Your task to perform on an android device: turn on notifications settings in the gmail app Image 0: 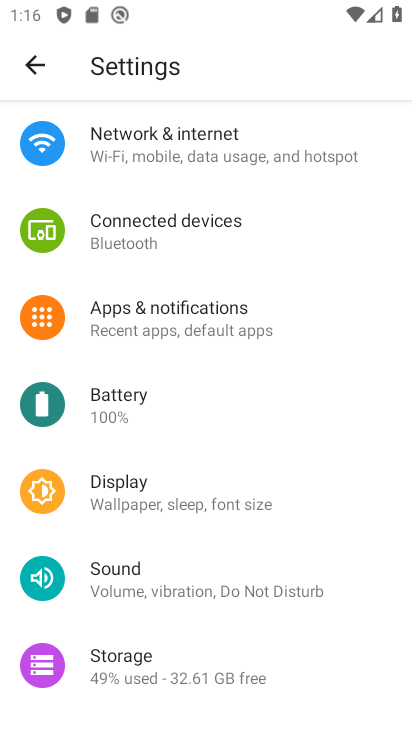
Step 0: press home button
Your task to perform on an android device: turn on notifications settings in the gmail app Image 1: 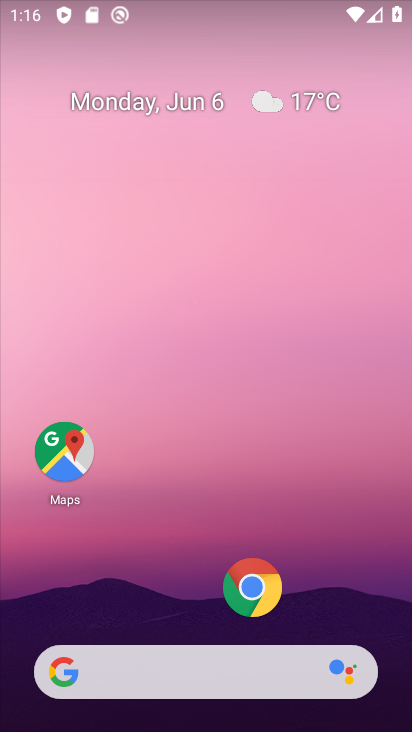
Step 1: drag from (218, 617) to (265, 6)
Your task to perform on an android device: turn on notifications settings in the gmail app Image 2: 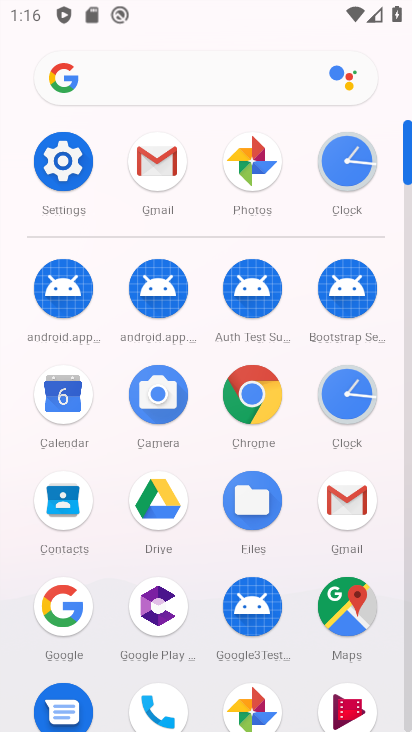
Step 2: click (351, 514)
Your task to perform on an android device: turn on notifications settings in the gmail app Image 3: 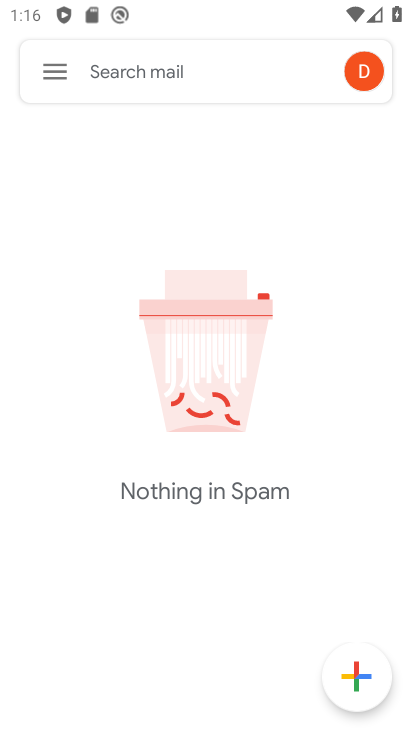
Step 3: click (51, 56)
Your task to perform on an android device: turn on notifications settings in the gmail app Image 4: 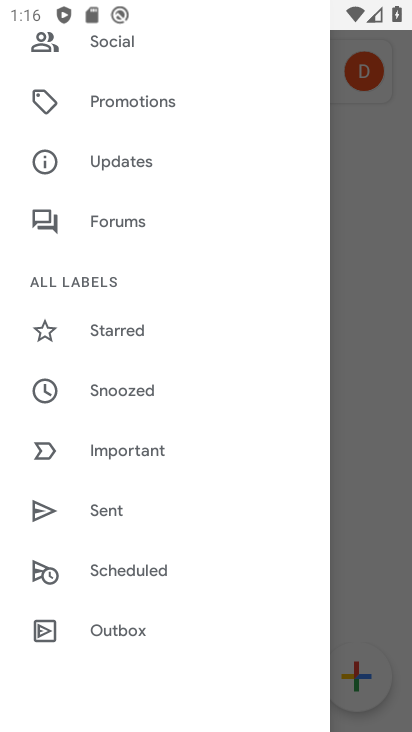
Step 4: drag from (110, 608) to (140, 316)
Your task to perform on an android device: turn on notifications settings in the gmail app Image 5: 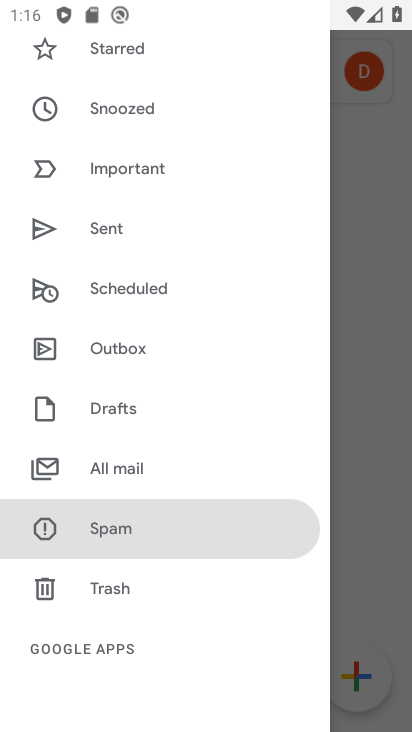
Step 5: drag from (92, 581) to (92, 103)
Your task to perform on an android device: turn on notifications settings in the gmail app Image 6: 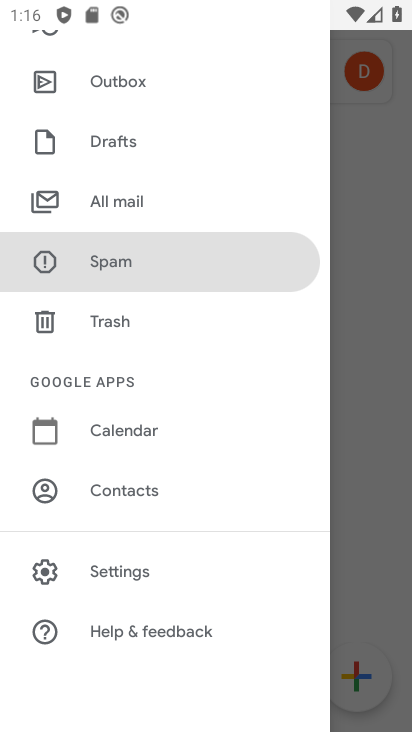
Step 6: click (126, 577)
Your task to perform on an android device: turn on notifications settings in the gmail app Image 7: 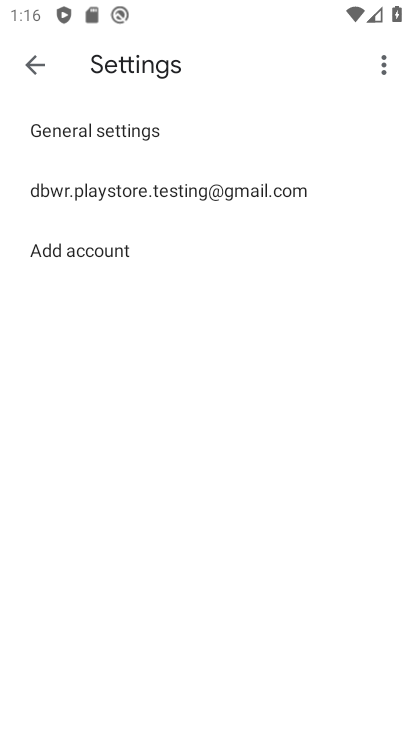
Step 7: click (137, 140)
Your task to perform on an android device: turn on notifications settings in the gmail app Image 8: 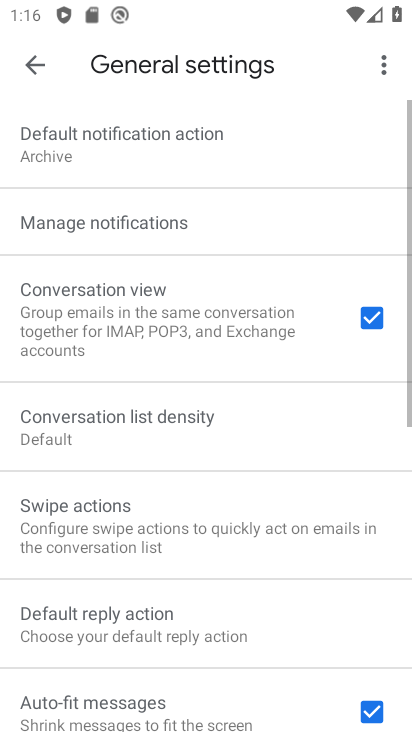
Step 8: click (139, 222)
Your task to perform on an android device: turn on notifications settings in the gmail app Image 9: 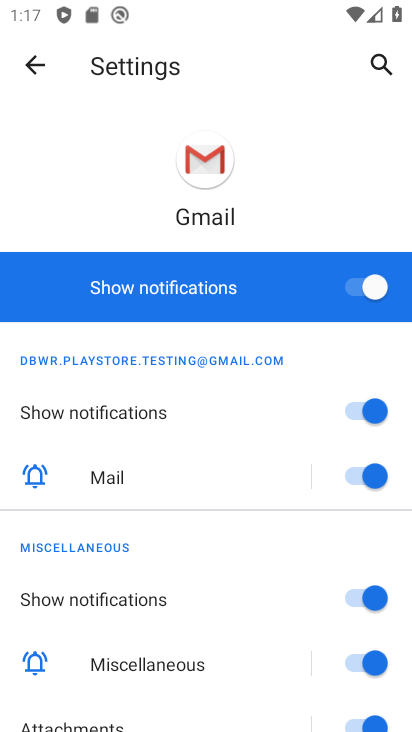
Step 9: task complete